Your task to perform on an android device: open app "Messenger Lite" (install if not already installed) and go to login screen Image 0: 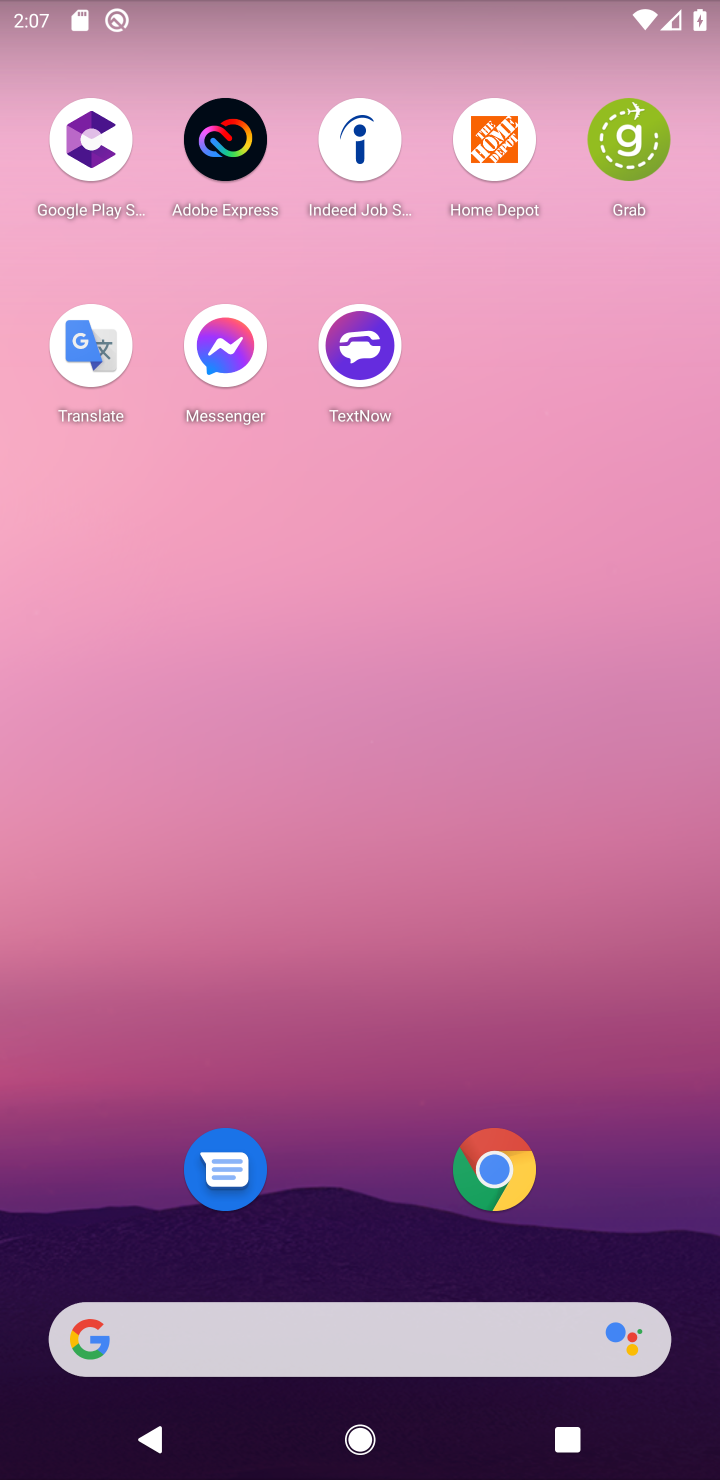
Step 0: drag from (424, 1194) to (318, 271)
Your task to perform on an android device: open app "Messenger Lite" (install if not already installed) and go to login screen Image 1: 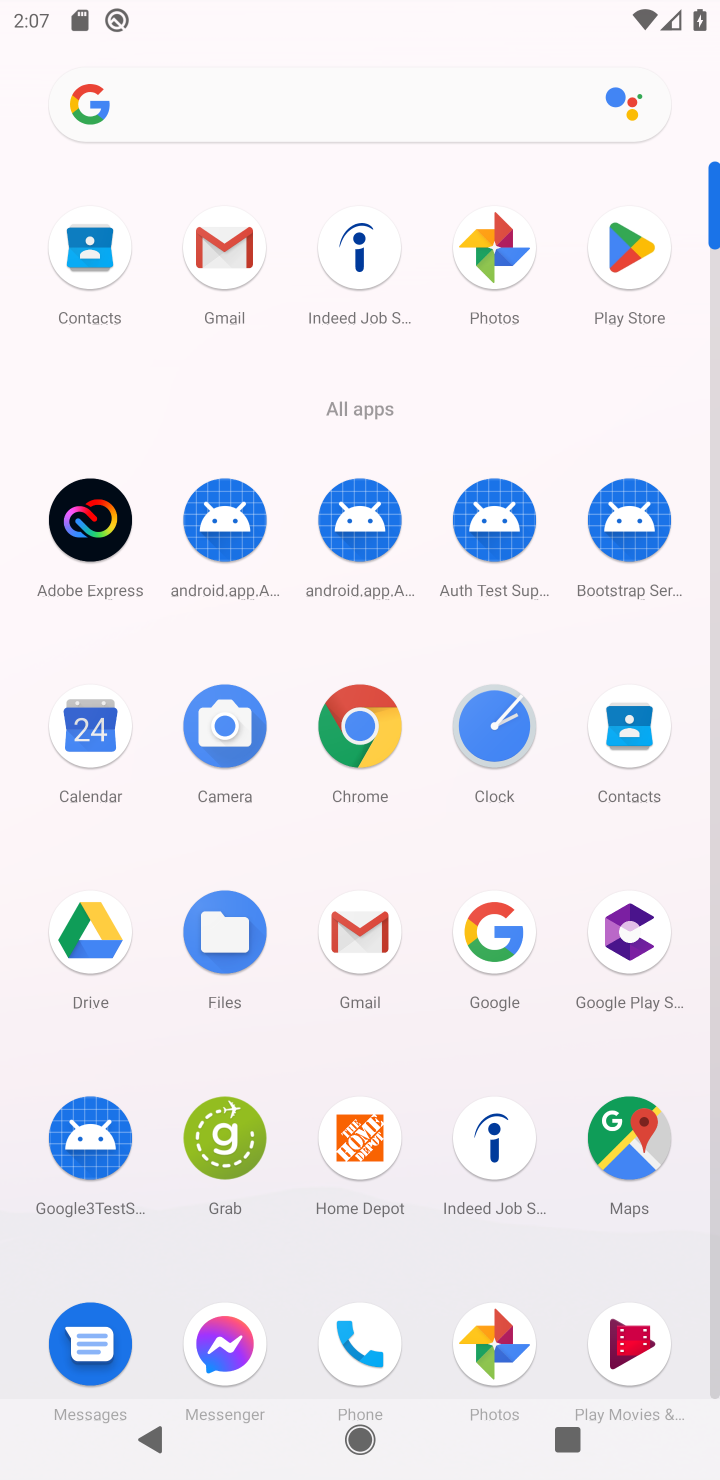
Step 1: click (604, 248)
Your task to perform on an android device: open app "Messenger Lite" (install if not already installed) and go to login screen Image 2: 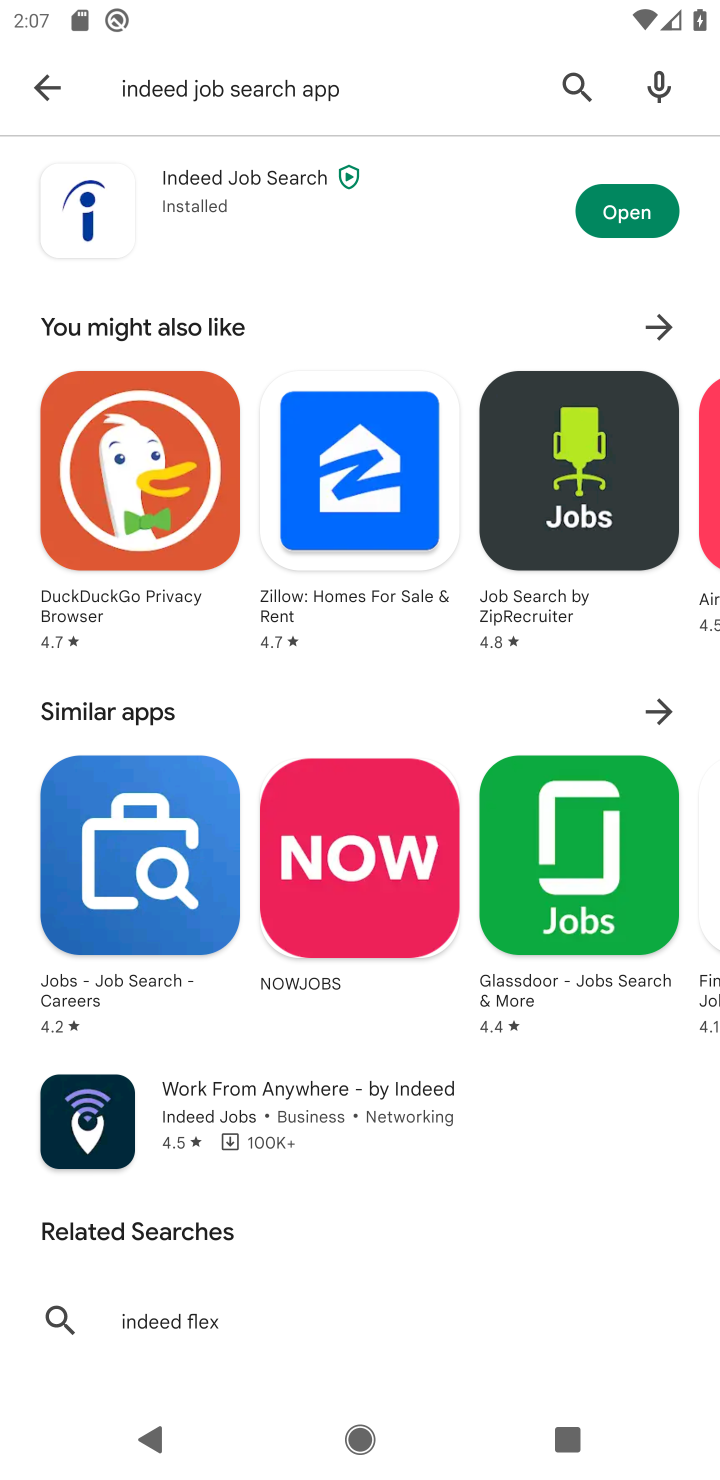
Step 2: click (54, 91)
Your task to perform on an android device: open app "Messenger Lite" (install if not already installed) and go to login screen Image 3: 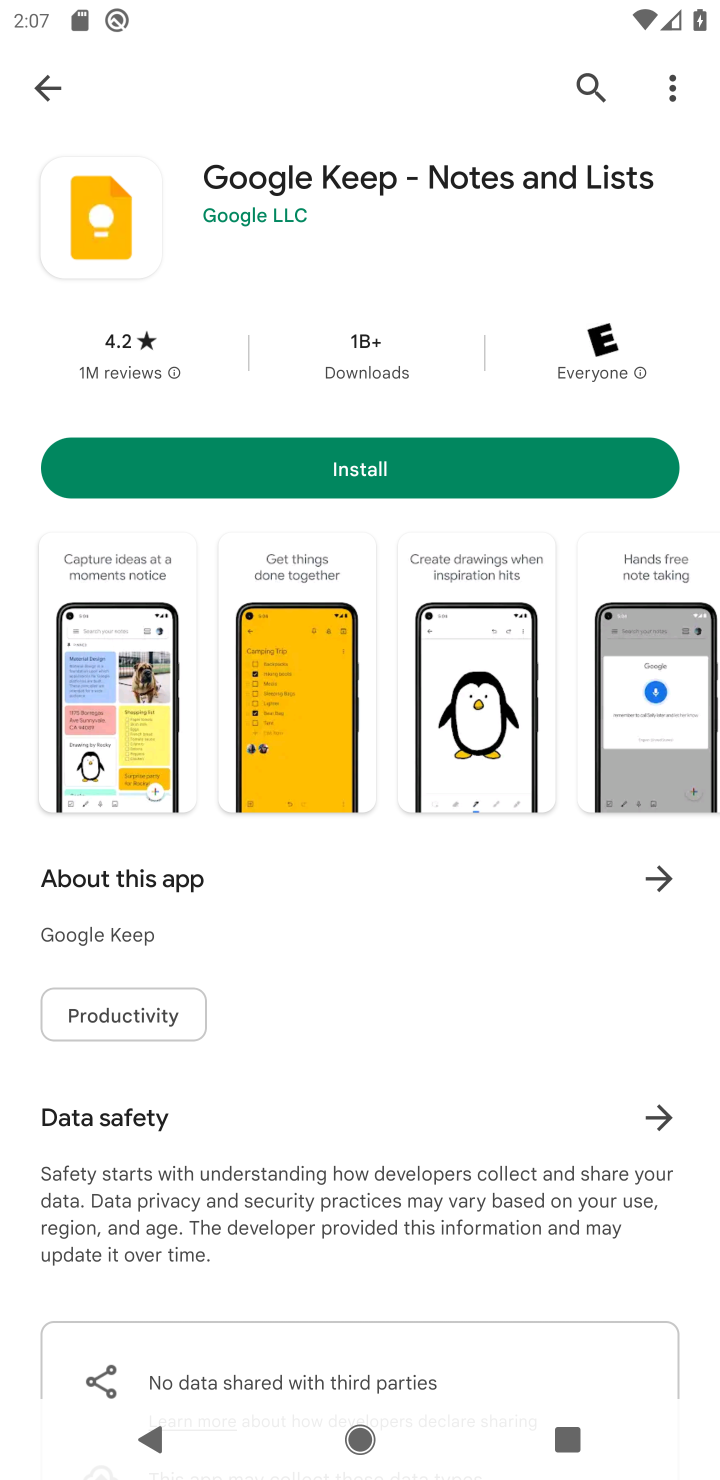
Step 3: click (53, 87)
Your task to perform on an android device: open app "Messenger Lite" (install if not already installed) and go to login screen Image 4: 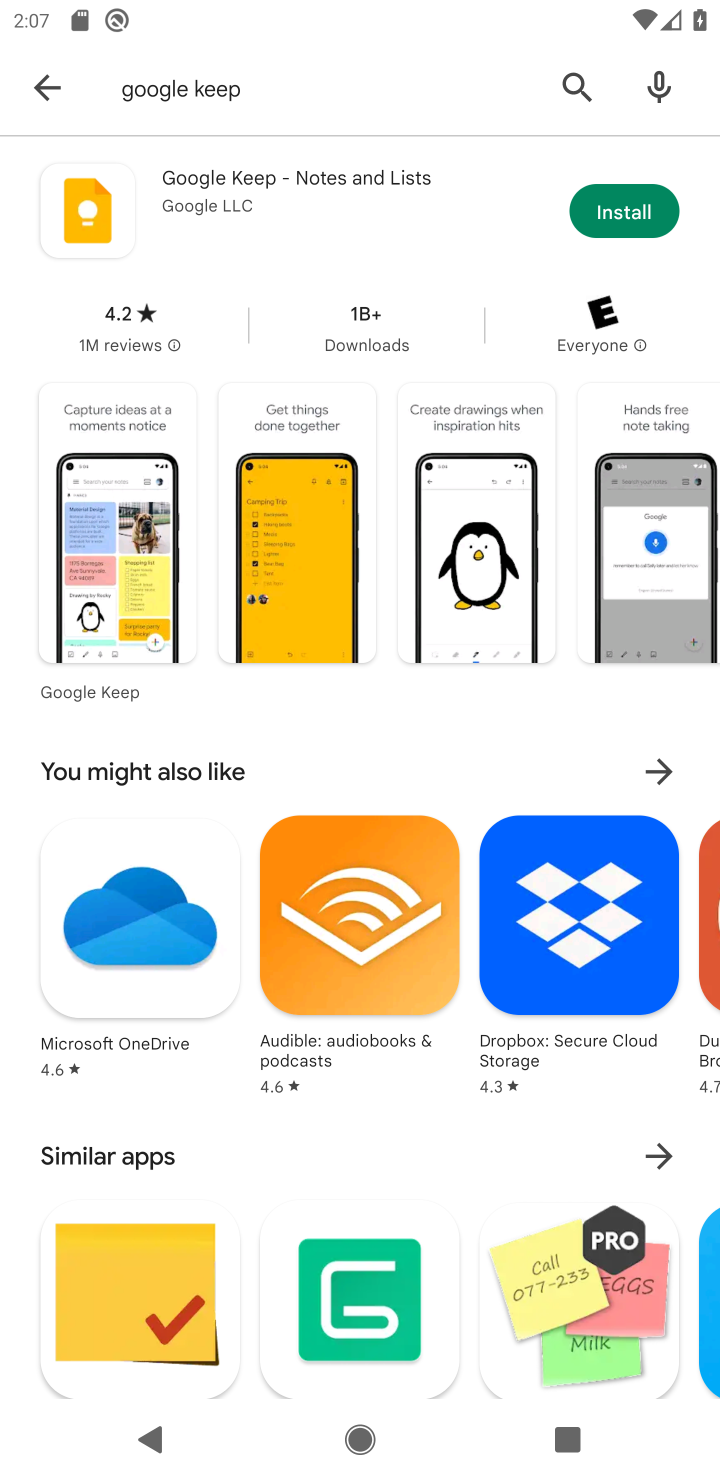
Step 4: click (53, 87)
Your task to perform on an android device: open app "Messenger Lite" (install if not already installed) and go to login screen Image 5: 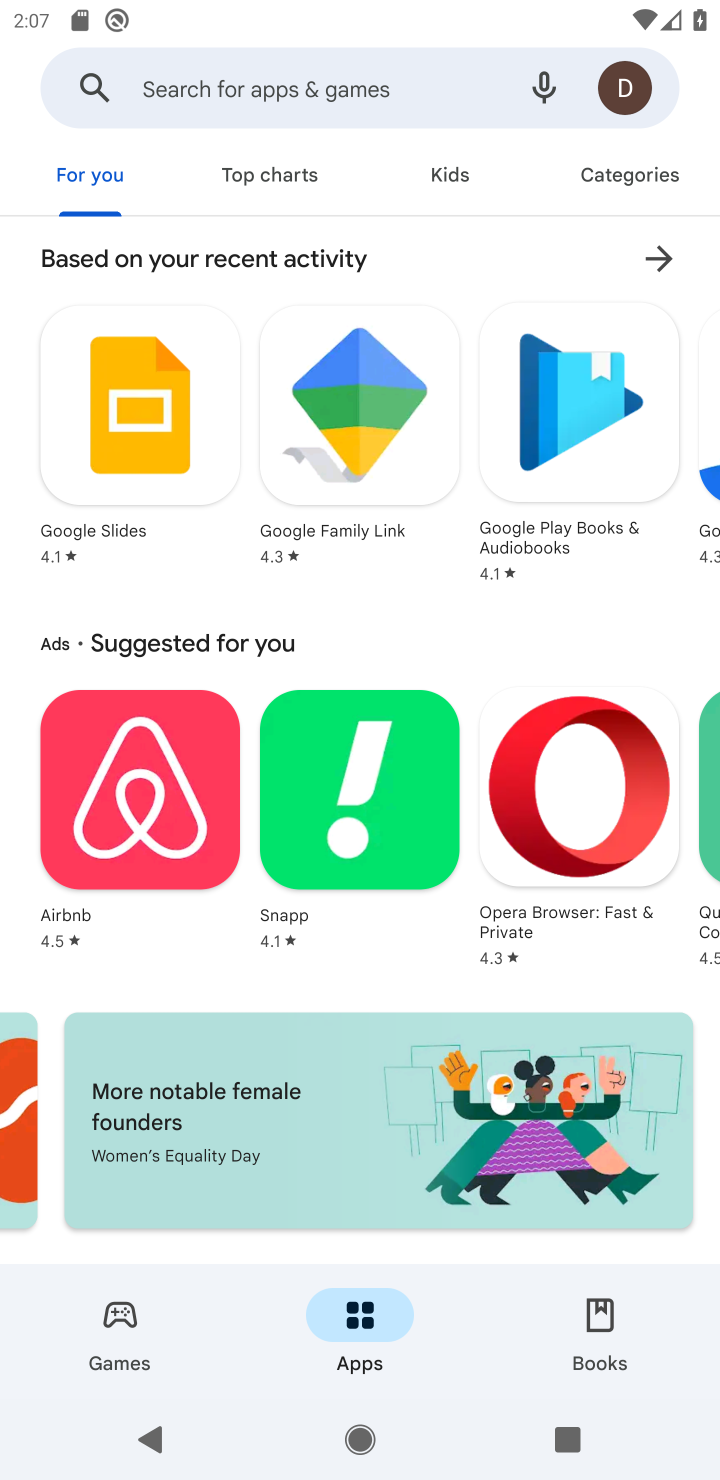
Step 5: click (260, 86)
Your task to perform on an android device: open app "Messenger Lite" (install if not already installed) and go to login screen Image 6: 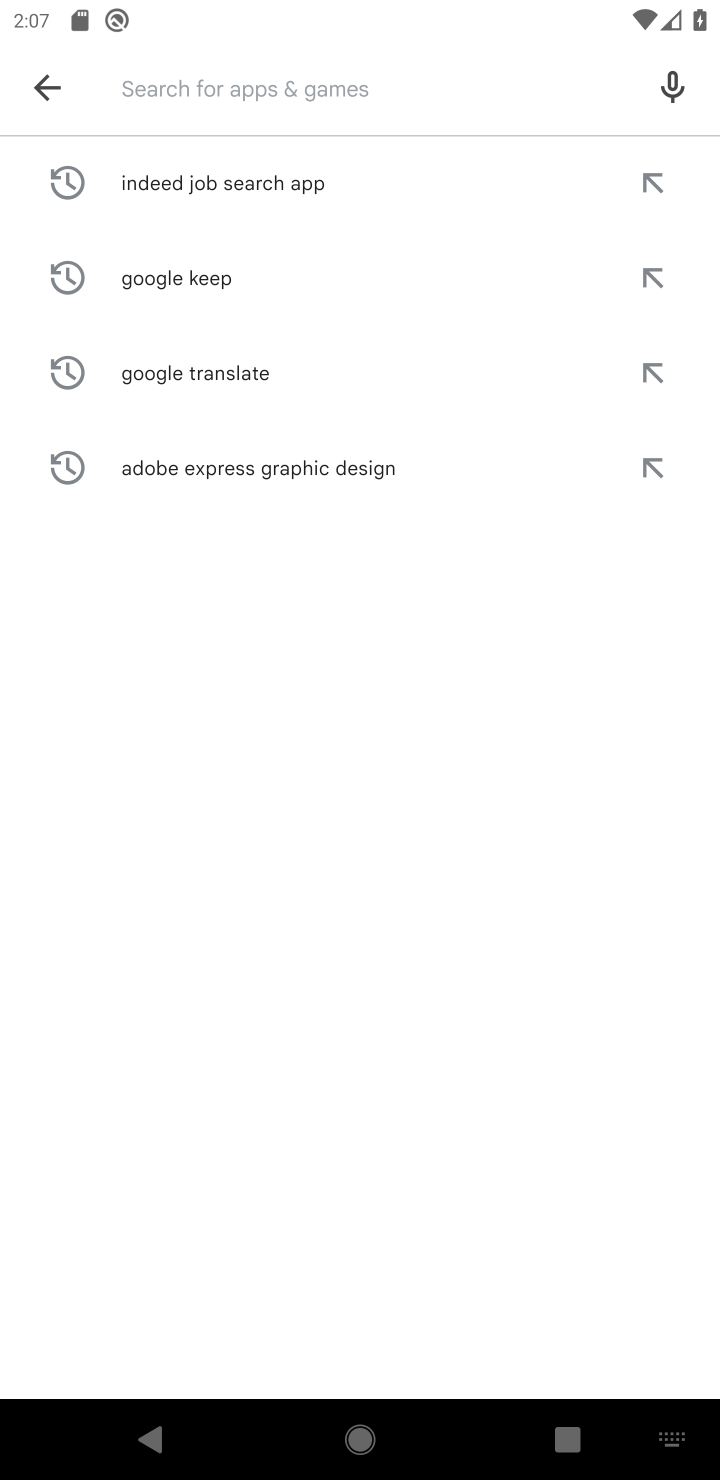
Step 6: type "Messenger Lite"
Your task to perform on an android device: open app "Messenger Lite" (install if not already installed) and go to login screen Image 7: 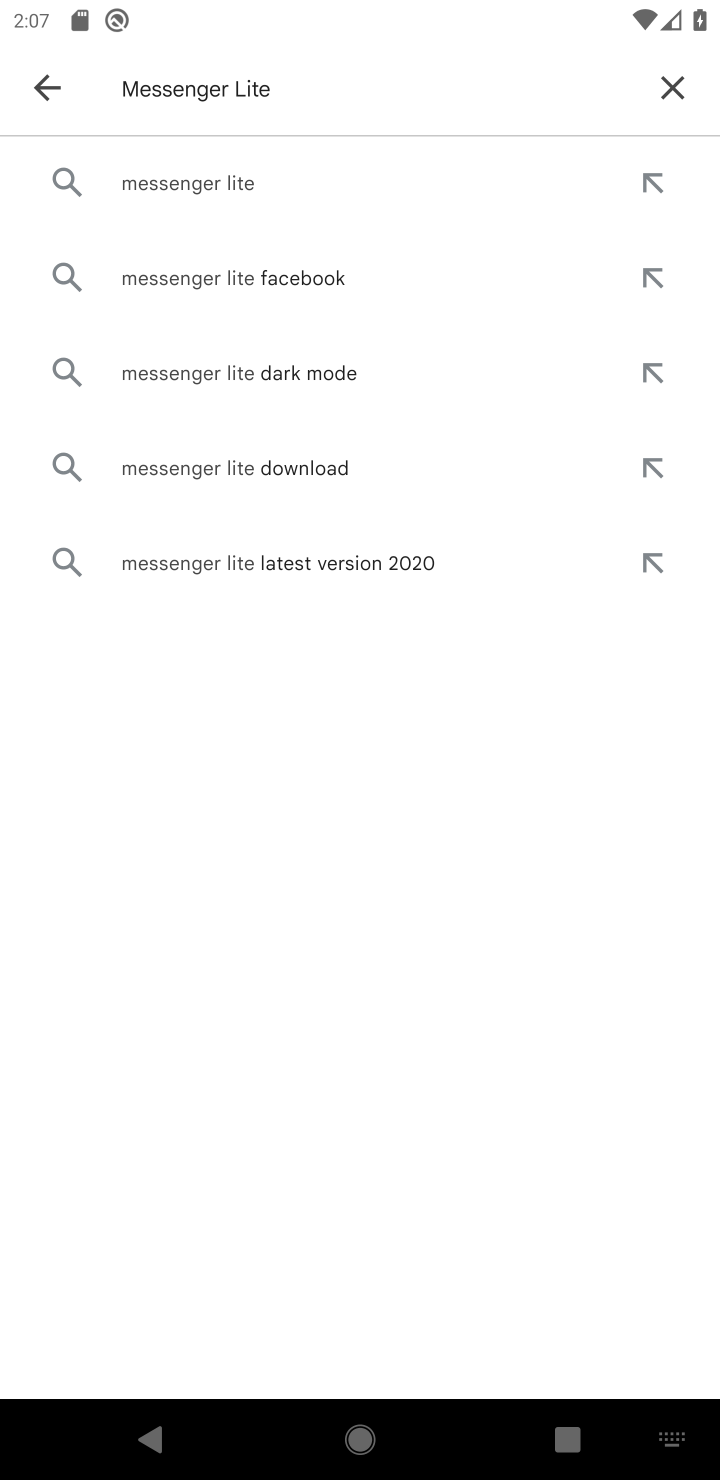
Step 7: click (182, 189)
Your task to perform on an android device: open app "Messenger Lite" (install if not already installed) and go to login screen Image 8: 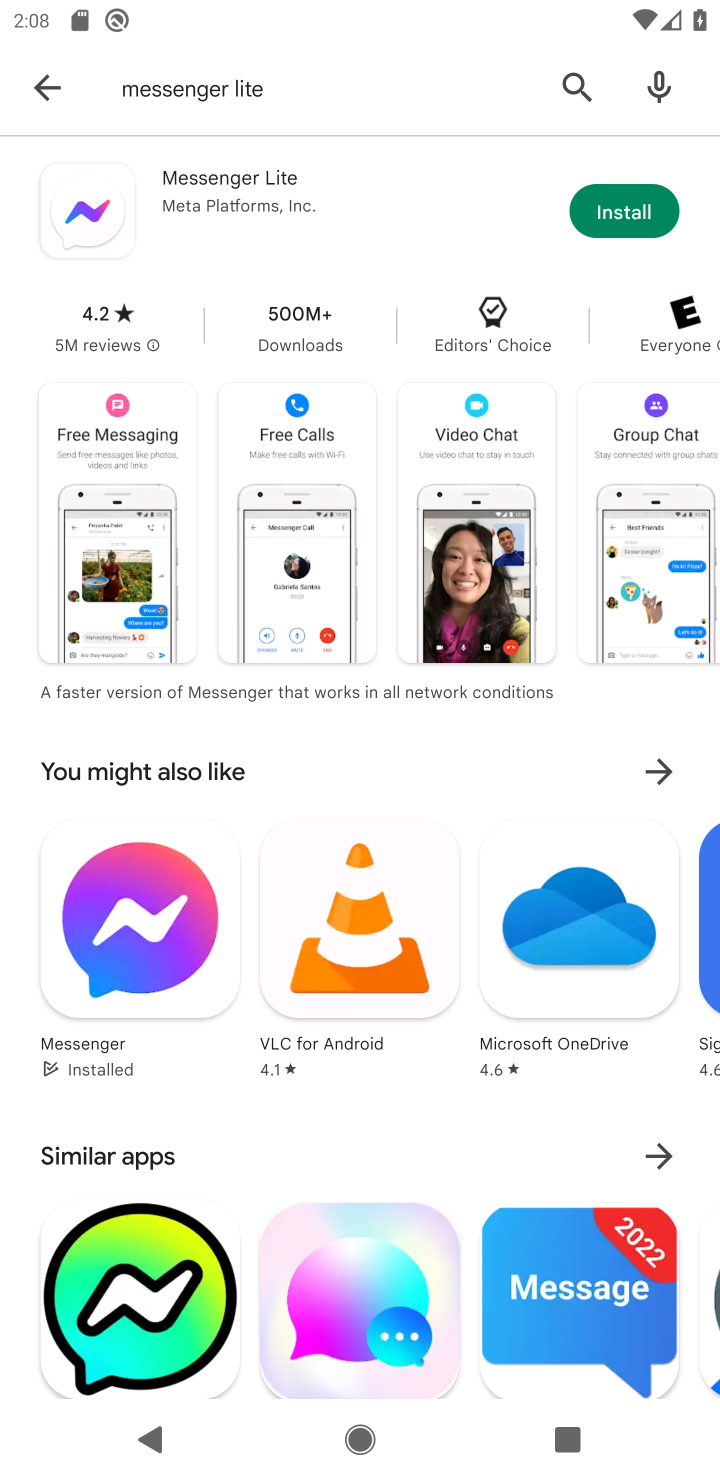
Step 8: click (624, 198)
Your task to perform on an android device: open app "Messenger Lite" (install if not already installed) and go to login screen Image 9: 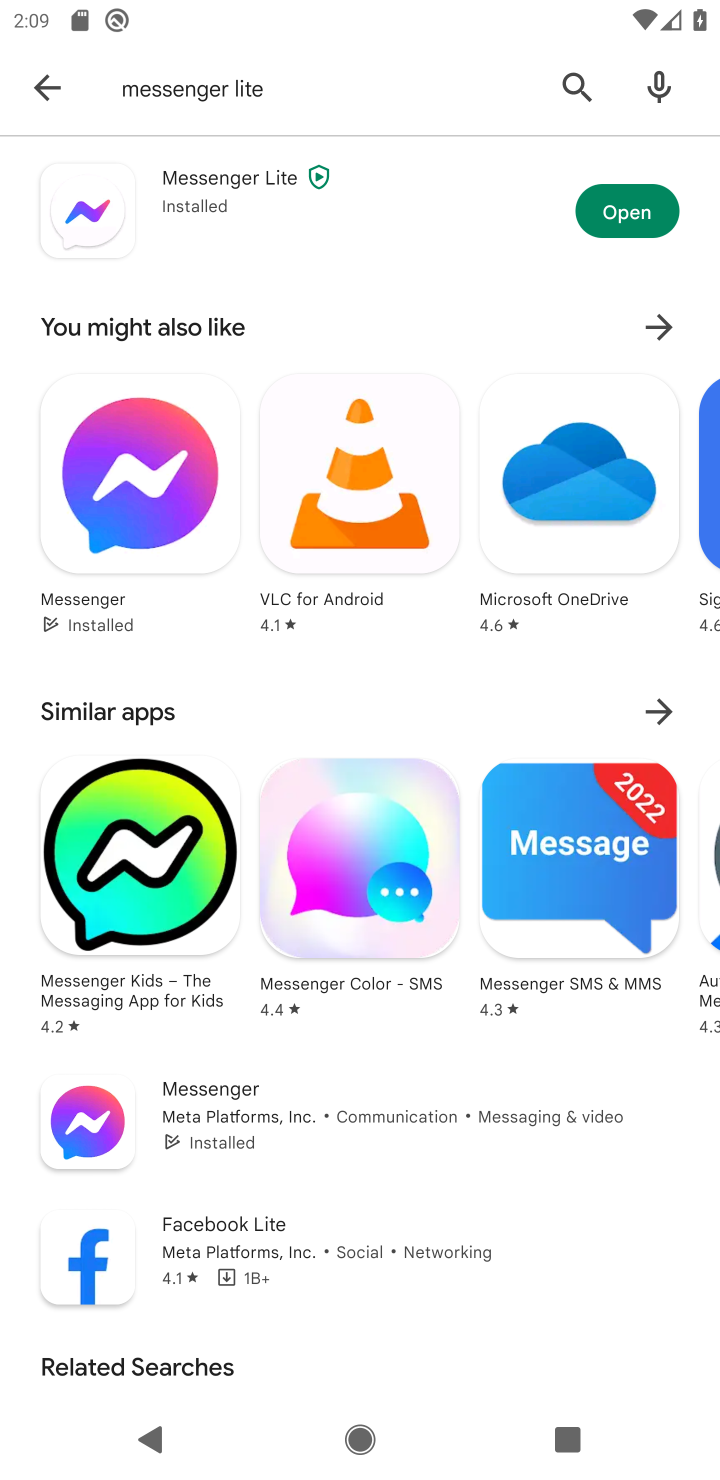
Step 9: click (615, 201)
Your task to perform on an android device: open app "Messenger Lite" (install if not already installed) and go to login screen Image 10: 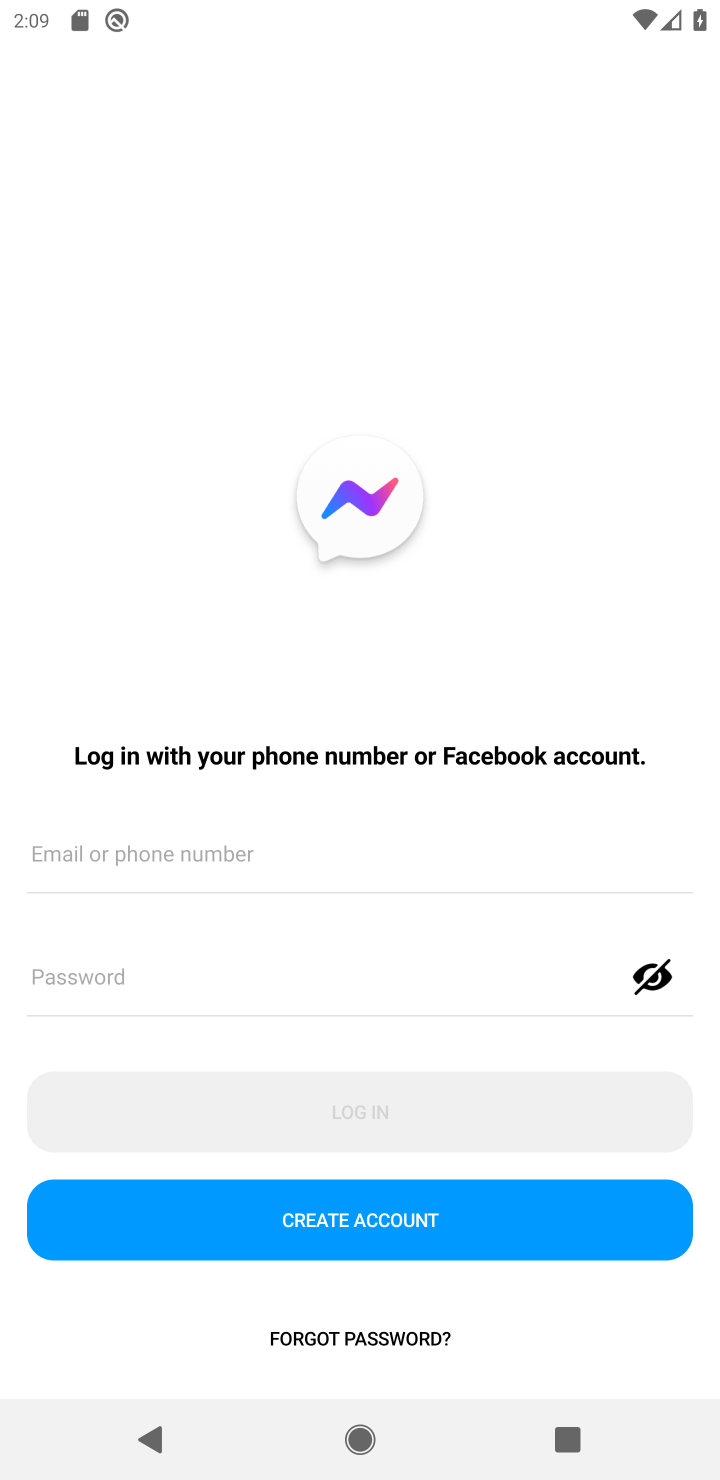
Step 10: task complete